Your task to perform on an android device: Open Google Image 0: 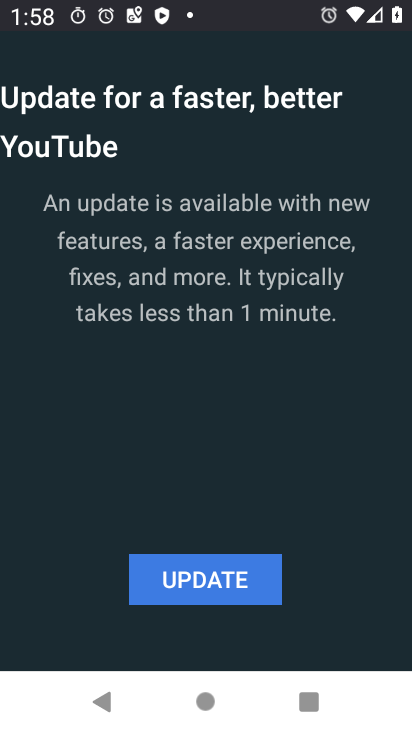
Step 0: press home button
Your task to perform on an android device: Open Google Image 1: 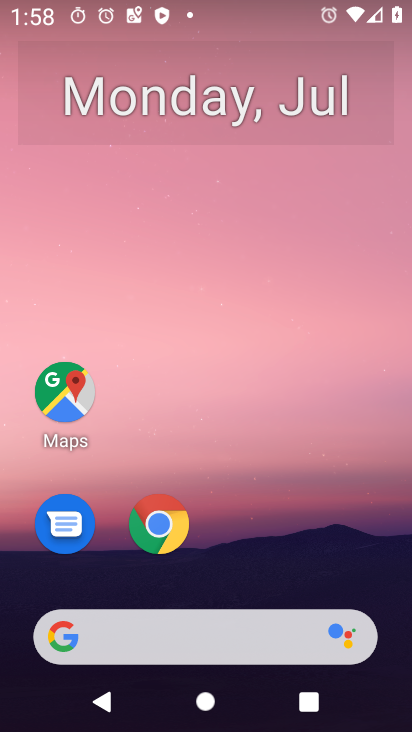
Step 1: drag from (297, 581) to (297, 80)
Your task to perform on an android device: Open Google Image 2: 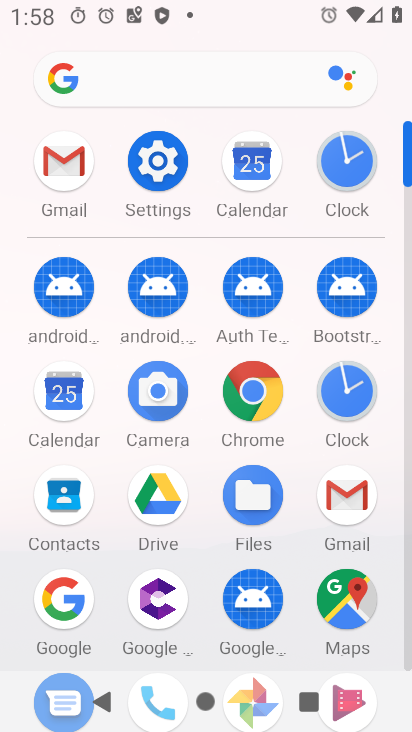
Step 2: click (56, 585)
Your task to perform on an android device: Open Google Image 3: 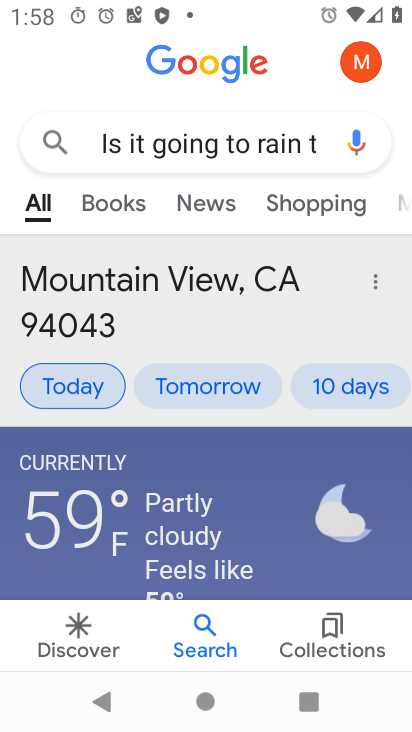
Step 3: click (193, 65)
Your task to perform on an android device: Open Google Image 4: 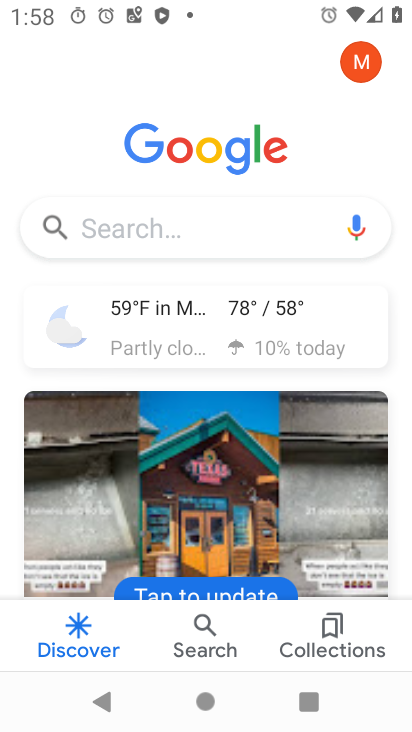
Step 4: task complete